Your task to perform on an android device: Open calendar and show me the second week of next month Image 0: 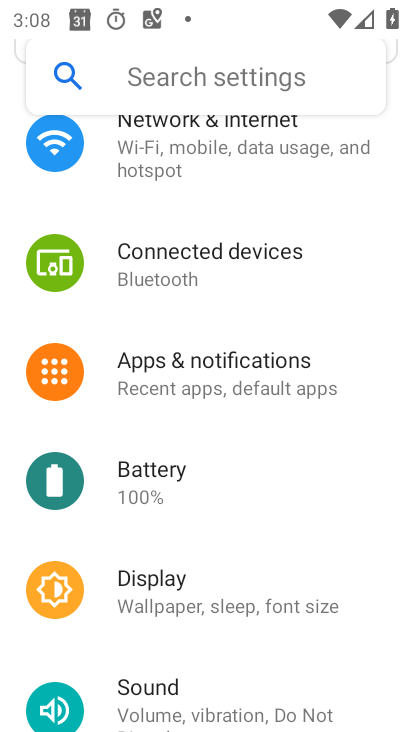
Step 0: press home button
Your task to perform on an android device: Open calendar and show me the second week of next month Image 1: 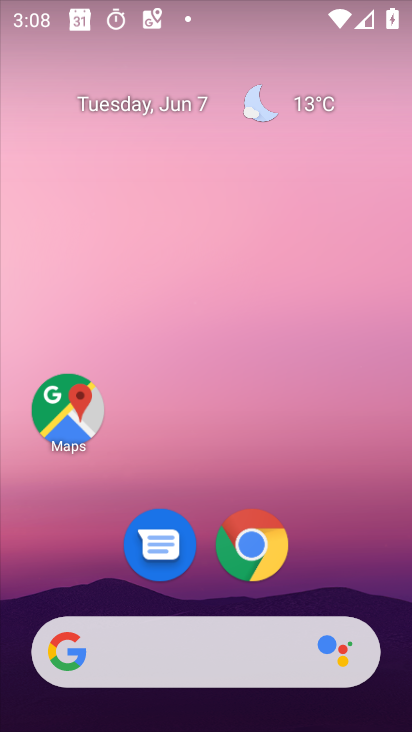
Step 1: click (145, 108)
Your task to perform on an android device: Open calendar and show me the second week of next month Image 2: 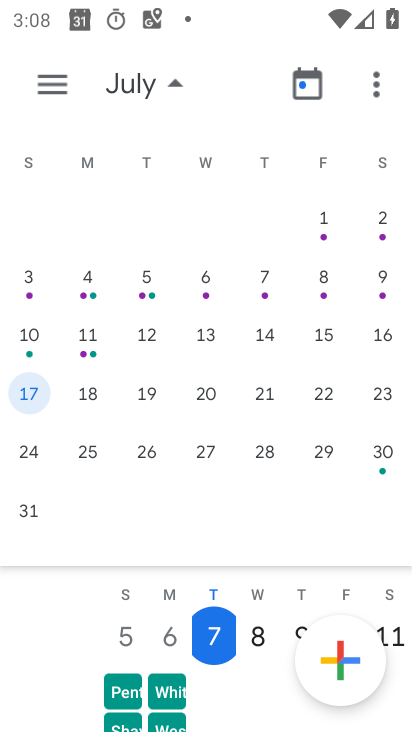
Step 2: click (37, 331)
Your task to perform on an android device: Open calendar and show me the second week of next month Image 3: 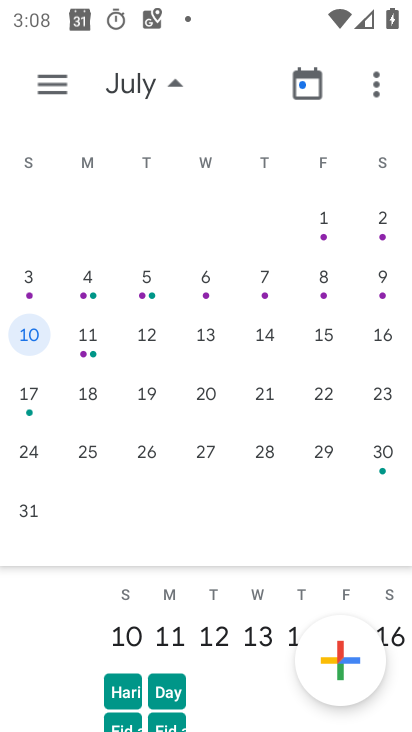
Step 3: task complete